Your task to perform on an android device: toggle priority inbox in the gmail app Image 0: 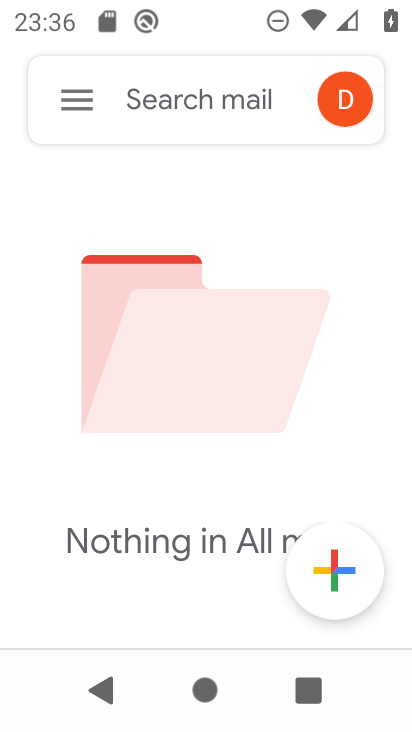
Step 0: click (80, 97)
Your task to perform on an android device: toggle priority inbox in the gmail app Image 1: 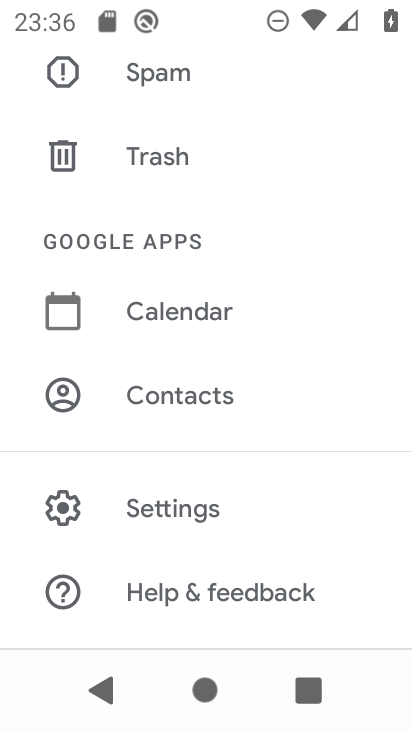
Step 1: click (172, 508)
Your task to perform on an android device: toggle priority inbox in the gmail app Image 2: 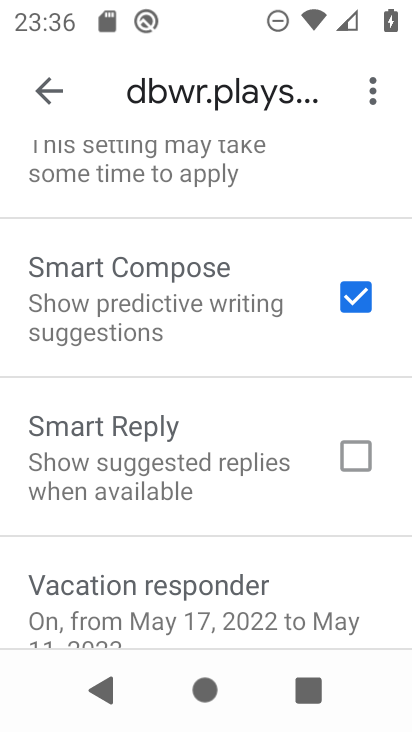
Step 2: drag from (225, 264) to (275, 558)
Your task to perform on an android device: toggle priority inbox in the gmail app Image 3: 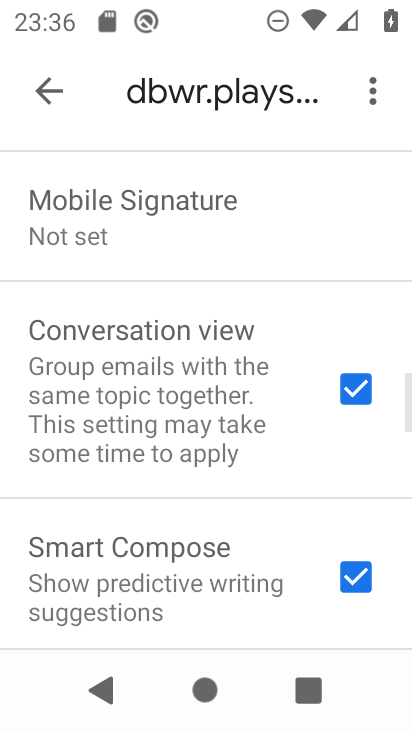
Step 3: drag from (212, 266) to (233, 516)
Your task to perform on an android device: toggle priority inbox in the gmail app Image 4: 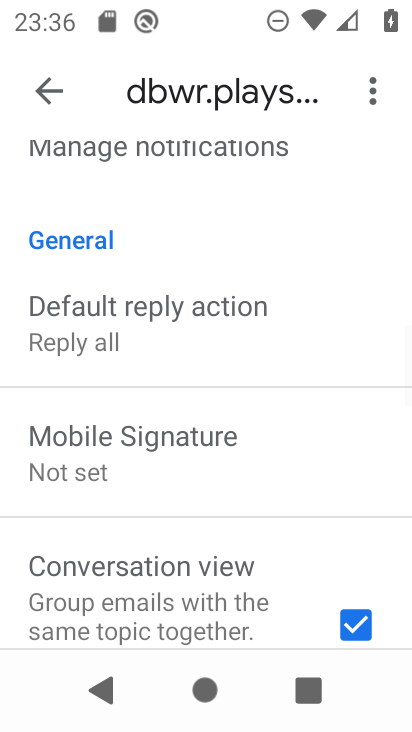
Step 4: drag from (195, 268) to (218, 535)
Your task to perform on an android device: toggle priority inbox in the gmail app Image 5: 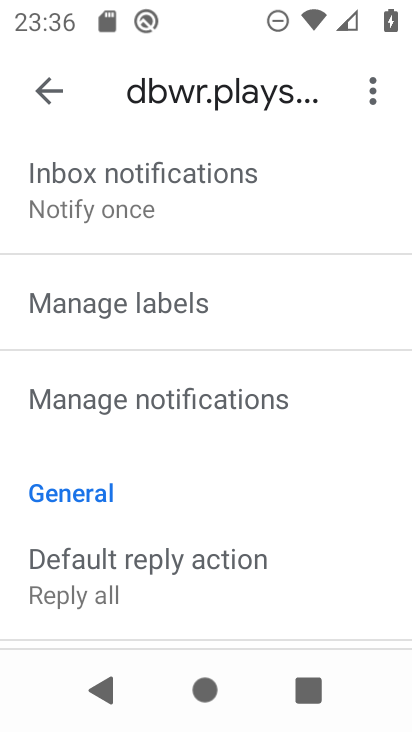
Step 5: drag from (190, 228) to (190, 488)
Your task to perform on an android device: toggle priority inbox in the gmail app Image 6: 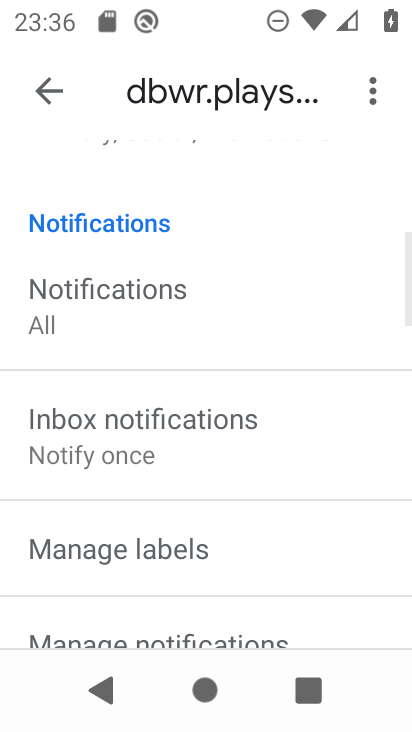
Step 6: drag from (203, 249) to (169, 546)
Your task to perform on an android device: toggle priority inbox in the gmail app Image 7: 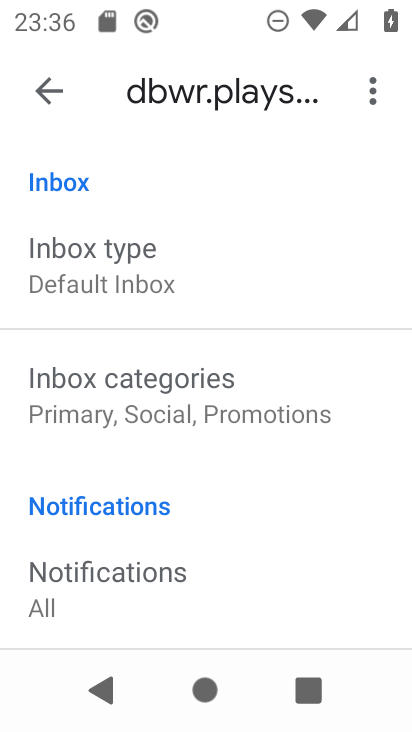
Step 7: click (111, 292)
Your task to perform on an android device: toggle priority inbox in the gmail app Image 8: 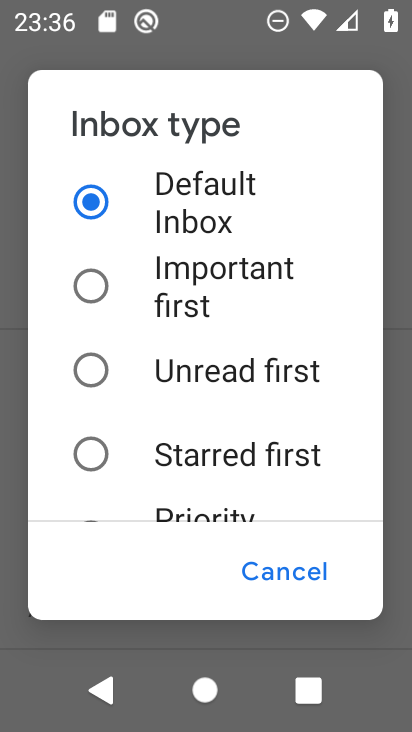
Step 8: drag from (182, 444) to (231, 231)
Your task to perform on an android device: toggle priority inbox in the gmail app Image 9: 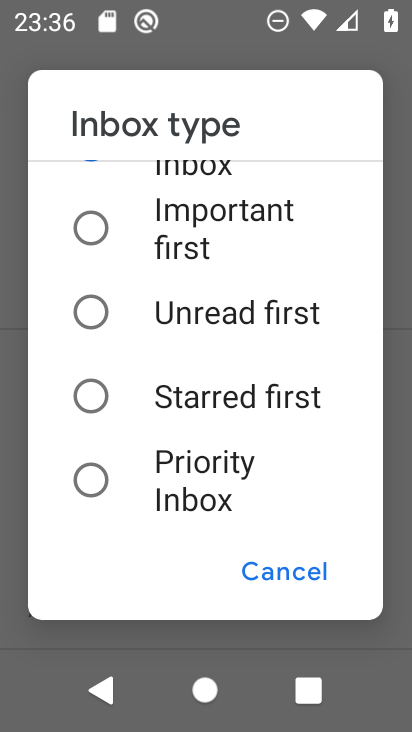
Step 9: click (197, 491)
Your task to perform on an android device: toggle priority inbox in the gmail app Image 10: 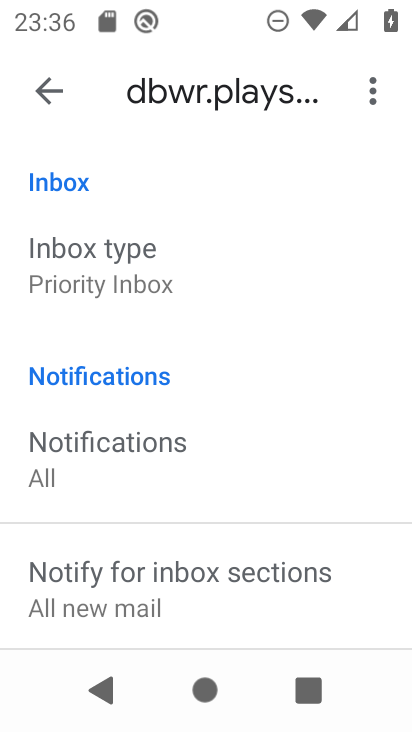
Step 10: task complete